Your task to perform on an android device: Clear the cart on bestbuy.com. Search for "apple airpods" on bestbuy.com, select the first entry, add it to the cart, then select checkout. Image 0: 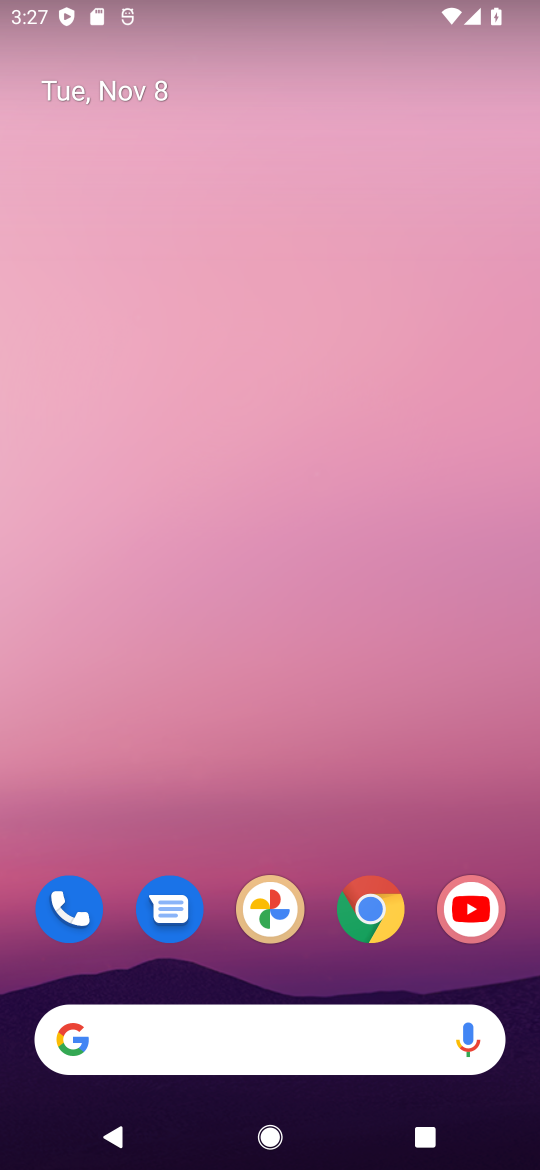
Step 0: click (386, 912)
Your task to perform on an android device: Clear the cart on bestbuy.com. Search for "apple airpods" on bestbuy.com, select the first entry, add it to the cart, then select checkout. Image 1: 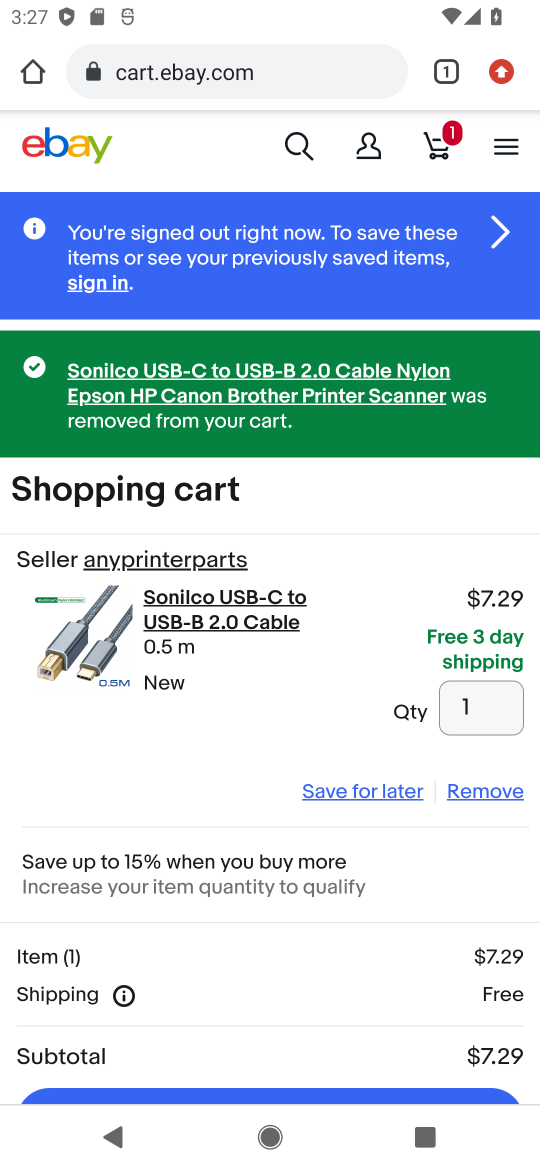
Step 1: click (304, 77)
Your task to perform on an android device: Clear the cart on bestbuy.com. Search for "apple airpods" on bestbuy.com, select the first entry, add it to the cart, then select checkout. Image 2: 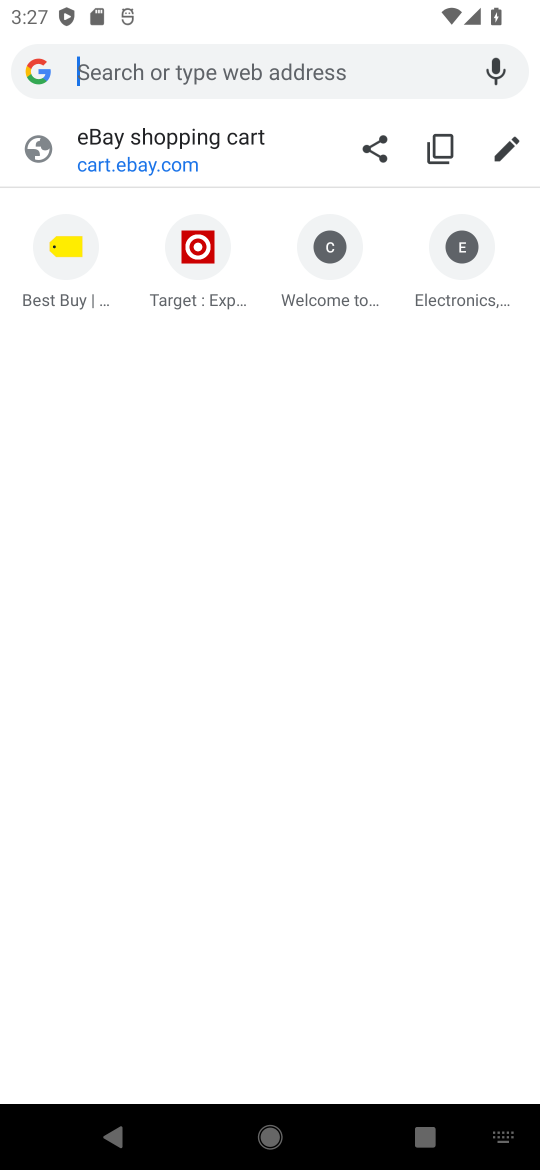
Step 2: click (72, 293)
Your task to perform on an android device: Clear the cart on bestbuy.com. Search for "apple airpods" on bestbuy.com, select the first entry, add it to the cart, then select checkout. Image 3: 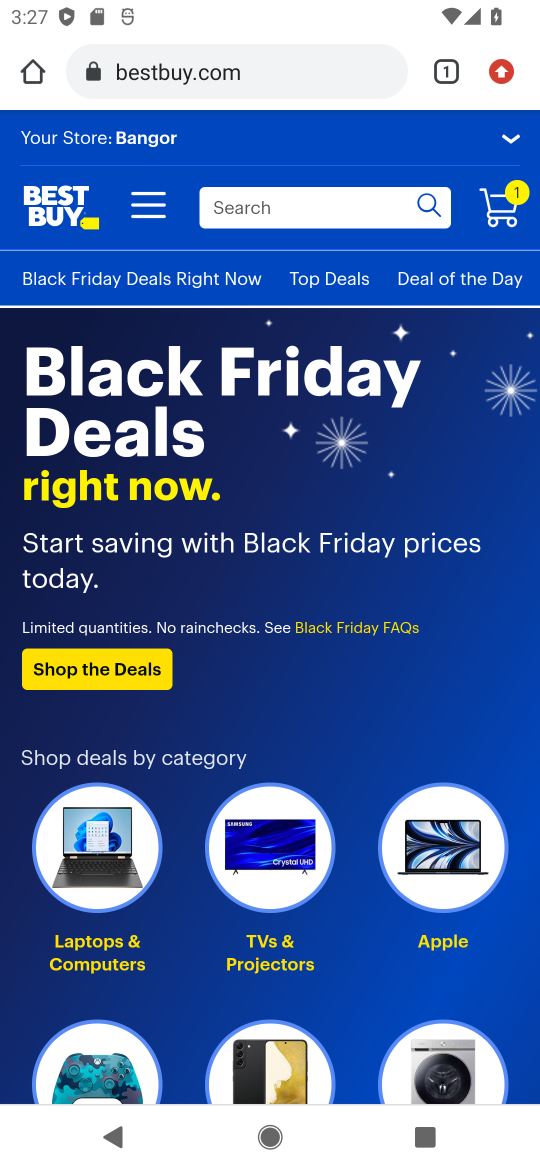
Step 3: click (308, 208)
Your task to perform on an android device: Clear the cart on bestbuy.com. Search for "apple airpods" on bestbuy.com, select the first entry, add it to the cart, then select checkout. Image 4: 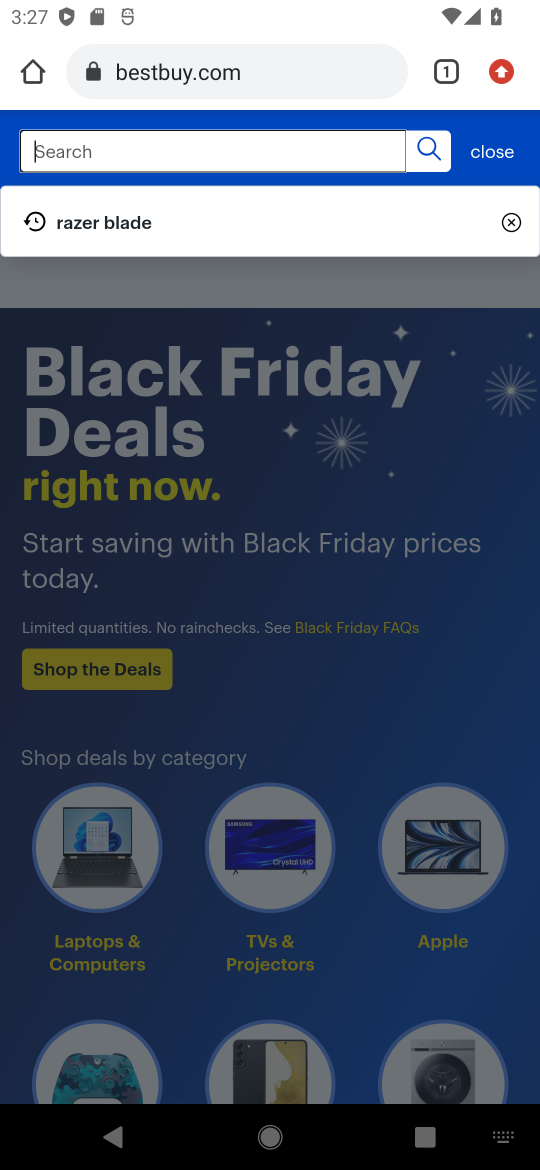
Step 4: type "apple airpods"
Your task to perform on an android device: Clear the cart on bestbuy.com. Search for "apple airpods" on bestbuy.com, select the first entry, add it to the cart, then select checkout. Image 5: 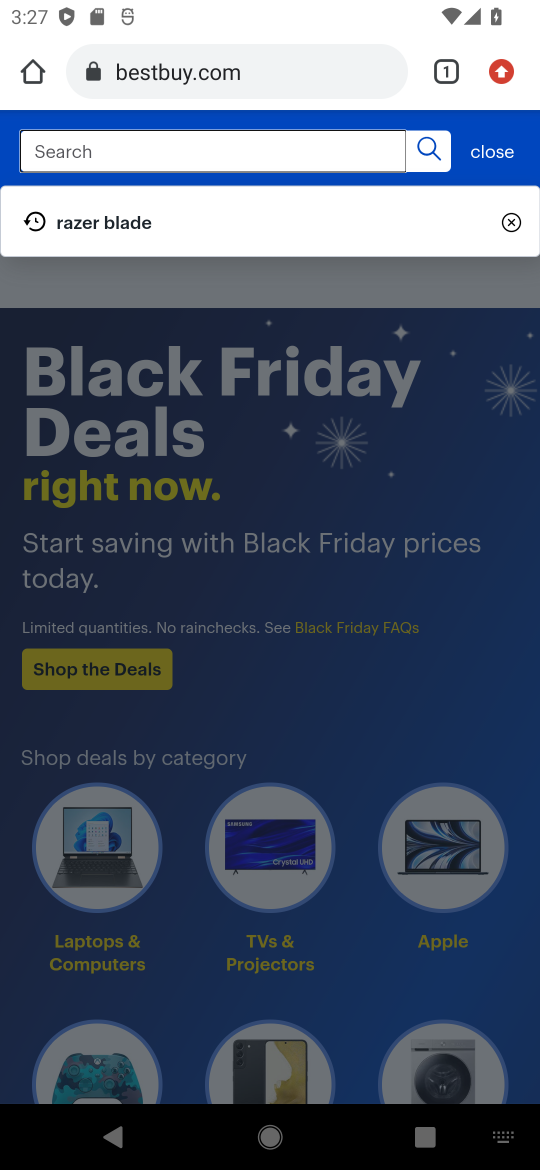
Step 5: press enter
Your task to perform on an android device: Clear the cart on bestbuy.com. Search for "apple airpods" on bestbuy.com, select the first entry, add it to the cart, then select checkout. Image 6: 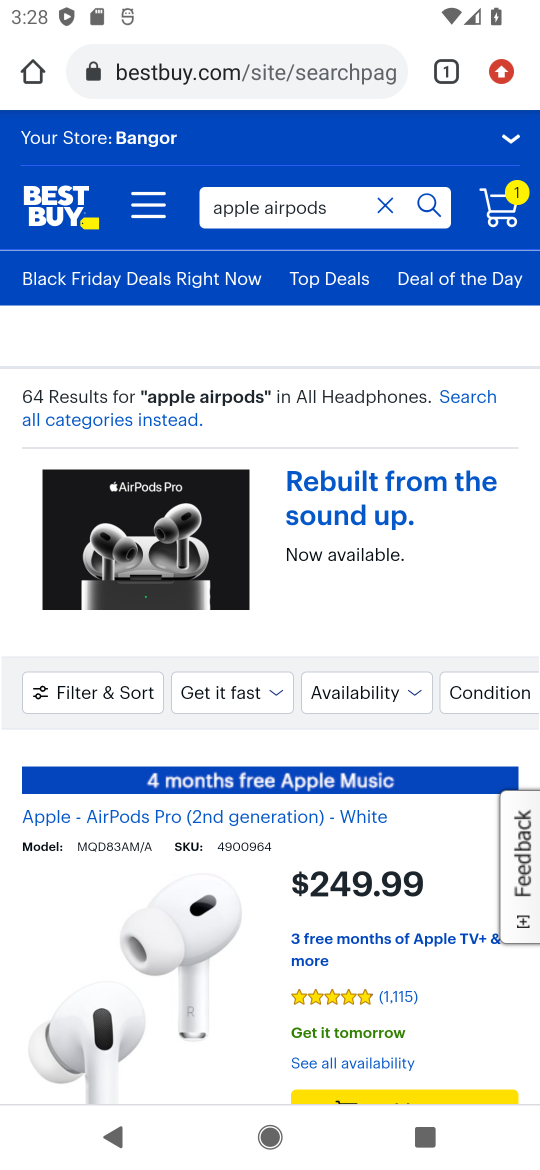
Step 6: drag from (224, 986) to (358, 506)
Your task to perform on an android device: Clear the cart on bestbuy.com. Search for "apple airpods" on bestbuy.com, select the first entry, add it to the cart, then select checkout. Image 7: 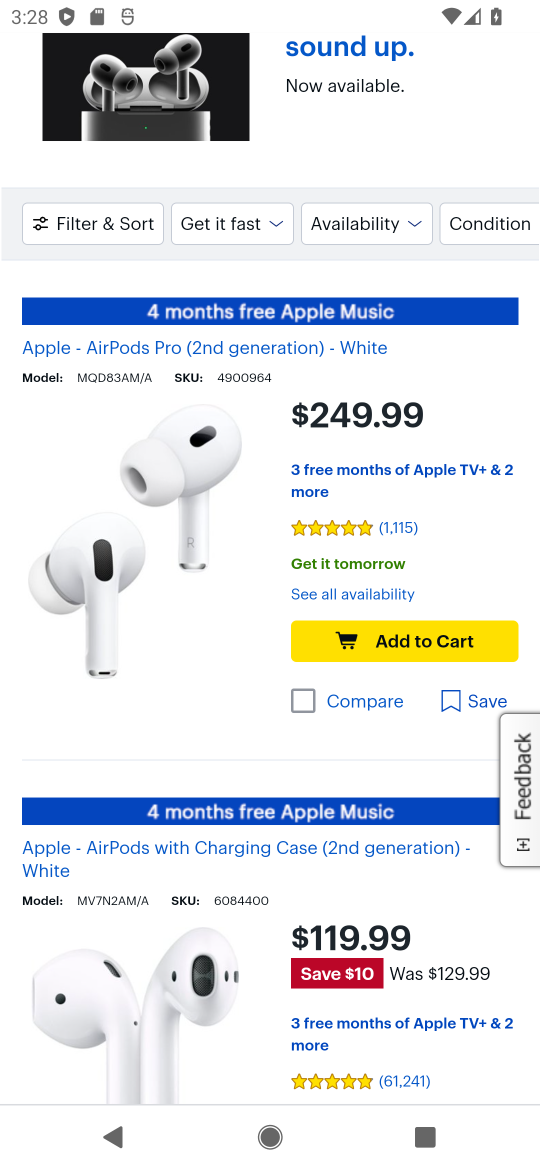
Step 7: click (407, 632)
Your task to perform on an android device: Clear the cart on bestbuy.com. Search for "apple airpods" on bestbuy.com, select the first entry, add it to the cart, then select checkout. Image 8: 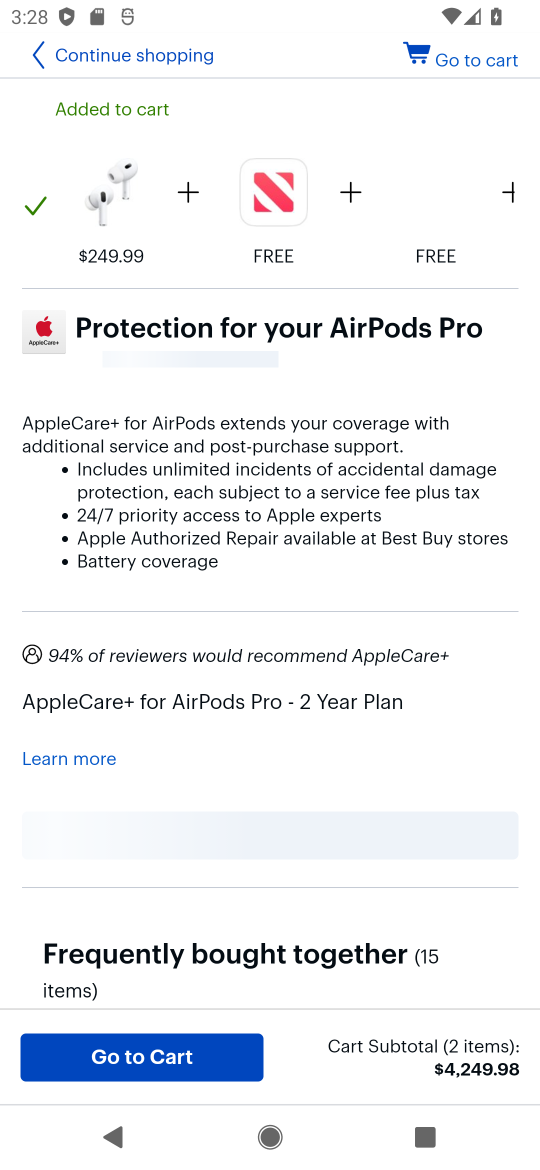
Step 8: click (485, 62)
Your task to perform on an android device: Clear the cart on bestbuy.com. Search for "apple airpods" on bestbuy.com, select the first entry, add it to the cart, then select checkout. Image 9: 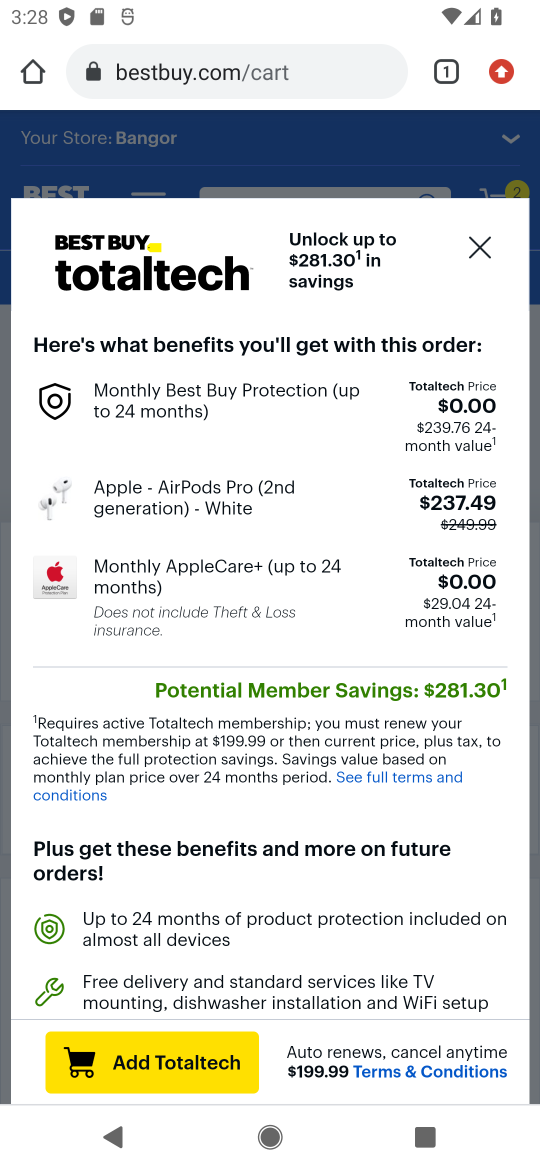
Step 9: click (482, 240)
Your task to perform on an android device: Clear the cart on bestbuy.com. Search for "apple airpods" on bestbuy.com, select the first entry, add it to the cart, then select checkout. Image 10: 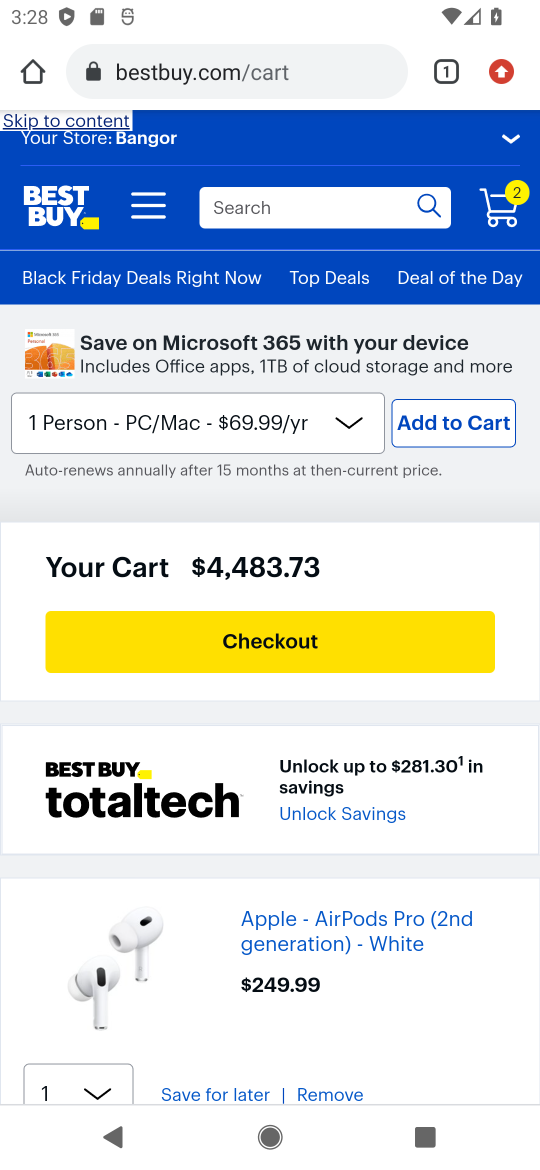
Step 10: drag from (215, 975) to (449, 107)
Your task to perform on an android device: Clear the cart on bestbuy.com. Search for "apple airpods" on bestbuy.com, select the first entry, add it to the cart, then select checkout. Image 11: 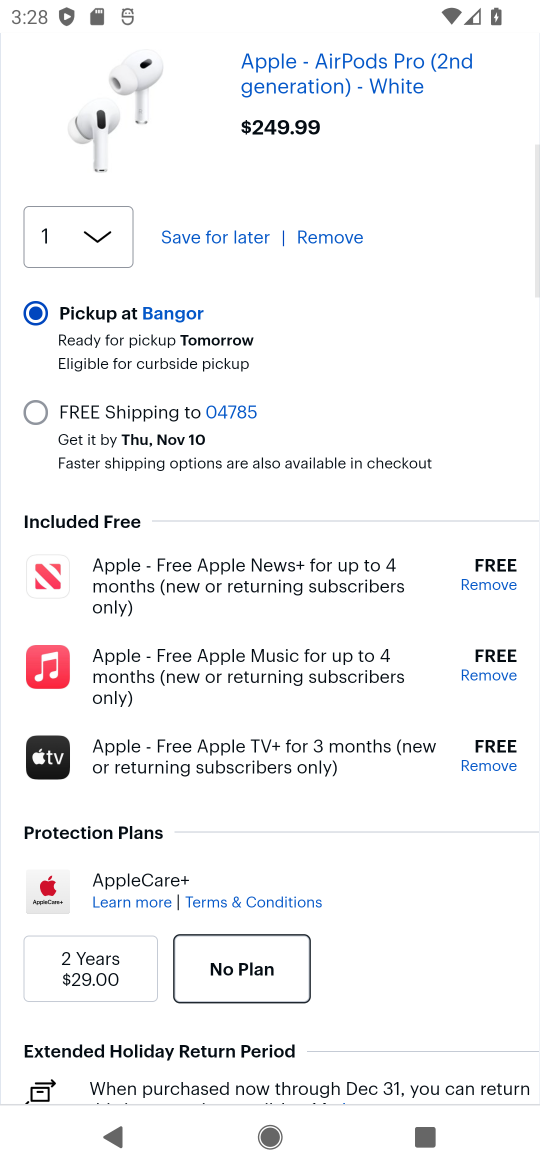
Step 11: drag from (374, 951) to (367, 400)
Your task to perform on an android device: Clear the cart on bestbuy.com. Search for "apple airpods" on bestbuy.com, select the first entry, add it to the cart, then select checkout. Image 12: 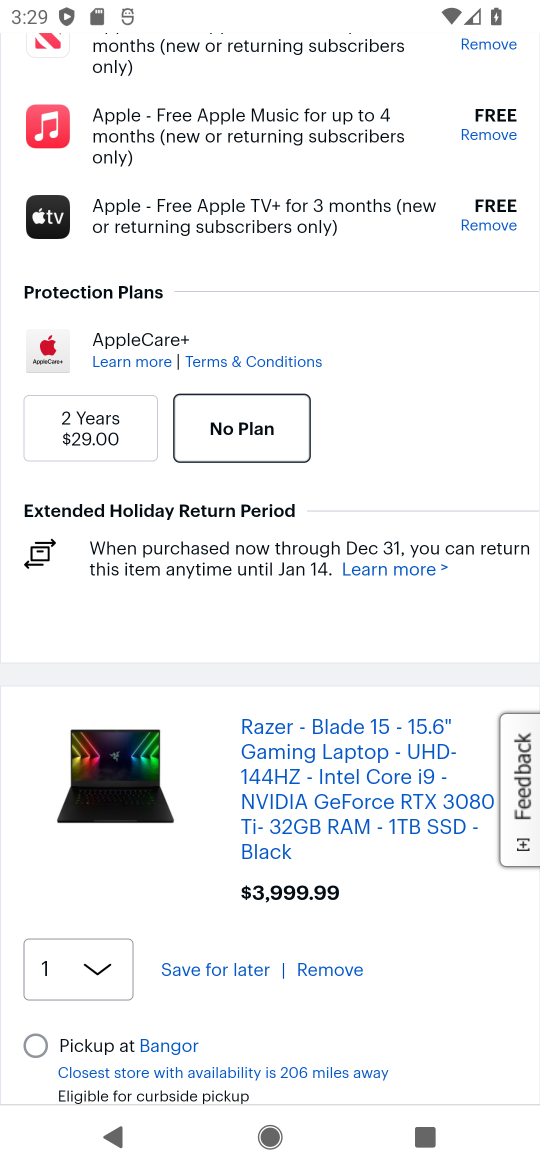
Step 12: click (328, 966)
Your task to perform on an android device: Clear the cart on bestbuy.com. Search for "apple airpods" on bestbuy.com, select the first entry, add it to the cart, then select checkout. Image 13: 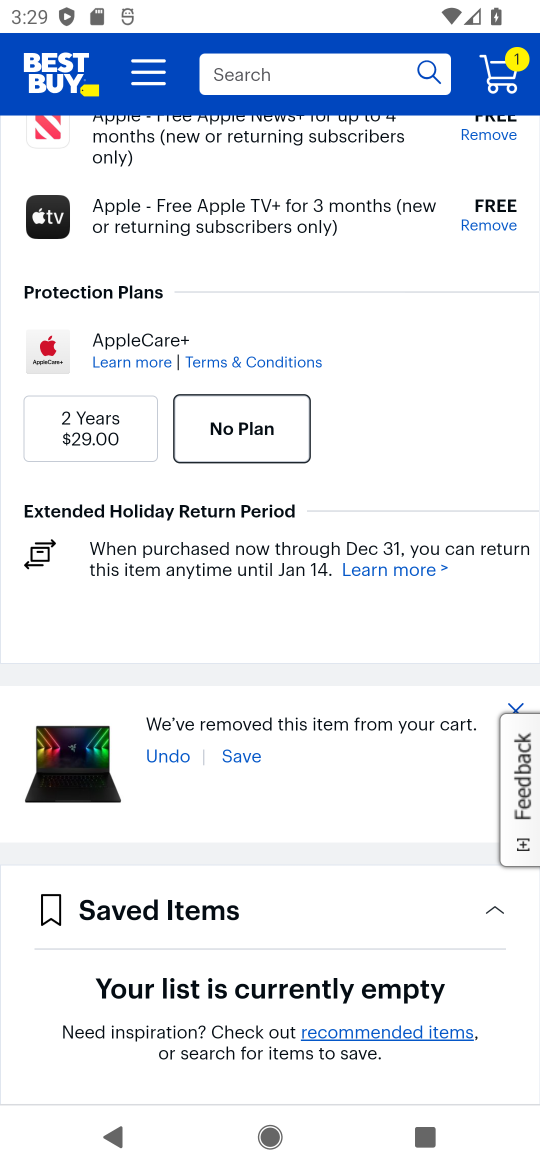
Step 13: drag from (437, 324) to (375, 999)
Your task to perform on an android device: Clear the cart on bestbuy.com. Search for "apple airpods" on bestbuy.com, select the first entry, add it to the cart, then select checkout. Image 14: 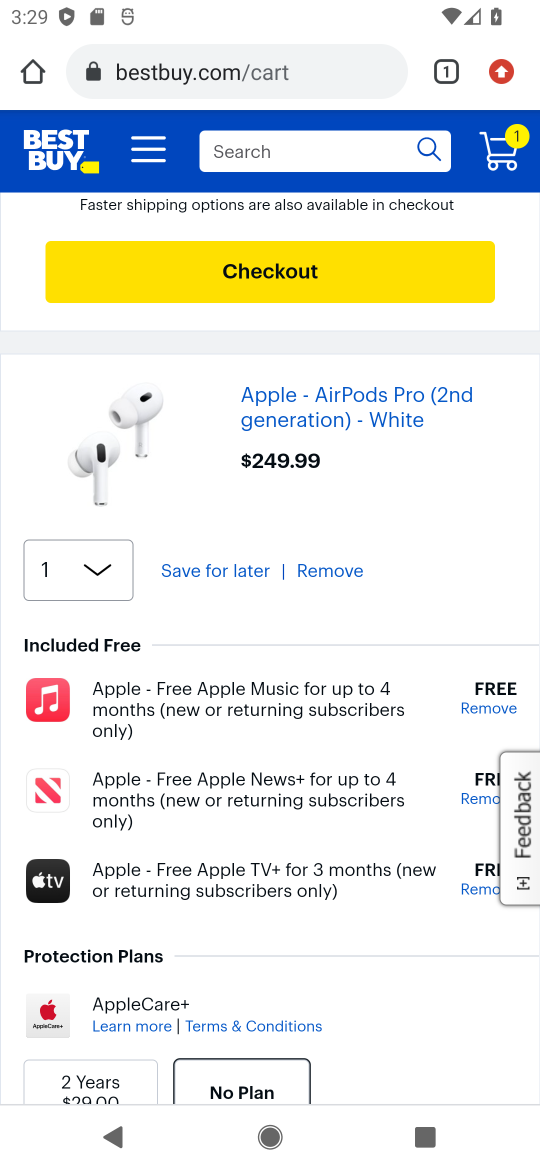
Step 14: drag from (442, 486) to (410, 964)
Your task to perform on an android device: Clear the cart on bestbuy.com. Search for "apple airpods" on bestbuy.com, select the first entry, add it to the cart, then select checkout. Image 15: 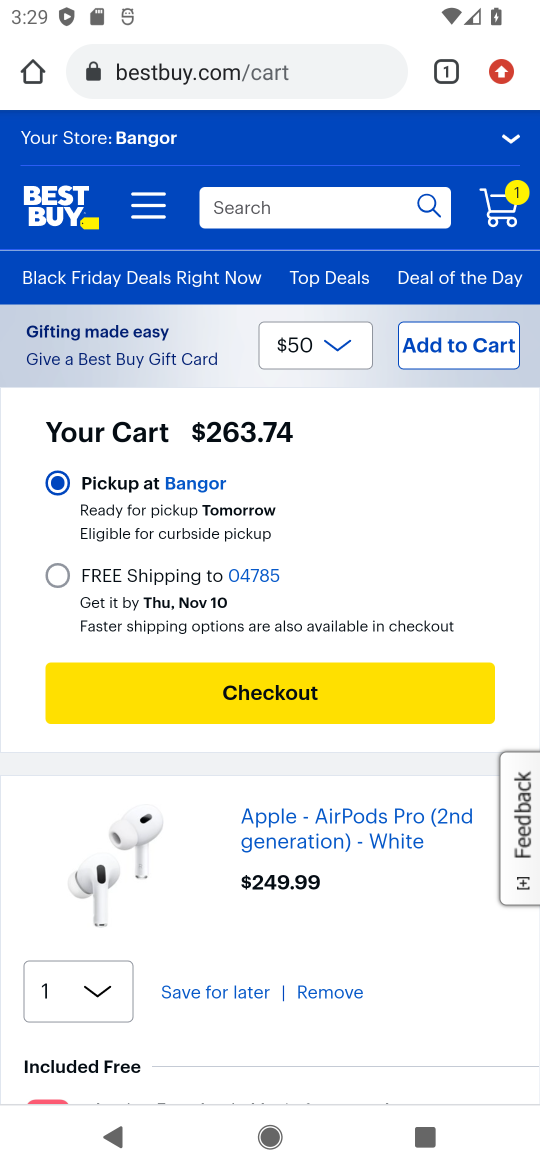
Step 15: click (309, 684)
Your task to perform on an android device: Clear the cart on bestbuy.com. Search for "apple airpods" on bestbuy.com, select the first entry, add it to the cart, then select checkout. Image 16: 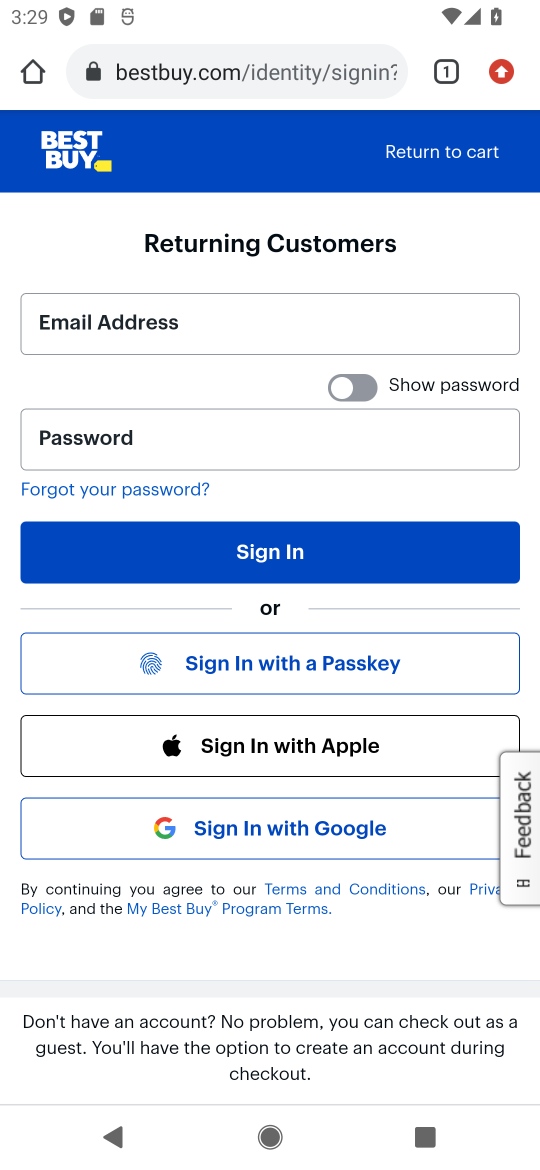
Step 16: task complete